Your task to perform on an android device: open app "Grab" (install if not already installed) Image 0: 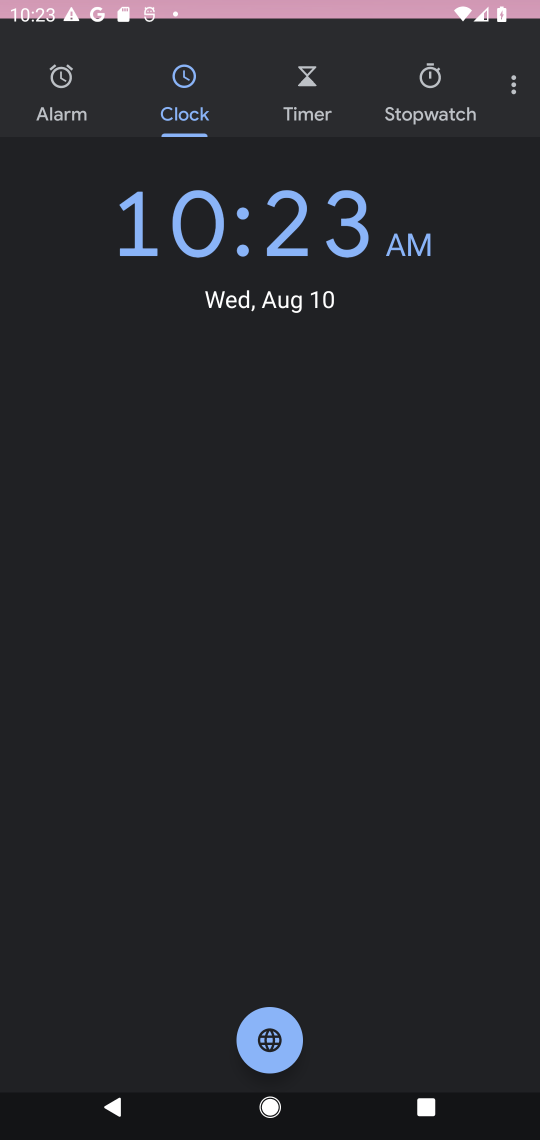
Step 0: press home button
Your task to perform on an android device: open app "Grab" (install if not already installed) Image 1: 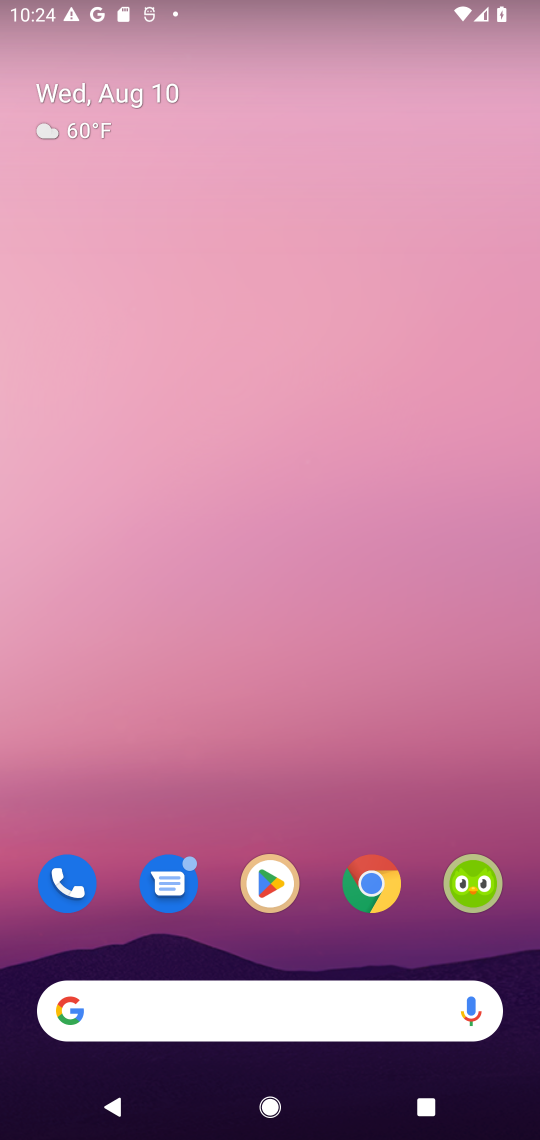
Step 1: drag from (411, 581) to (404, 61)
Your task to perform on an android device: open app "Grab" (install if not already installed) Image 2: 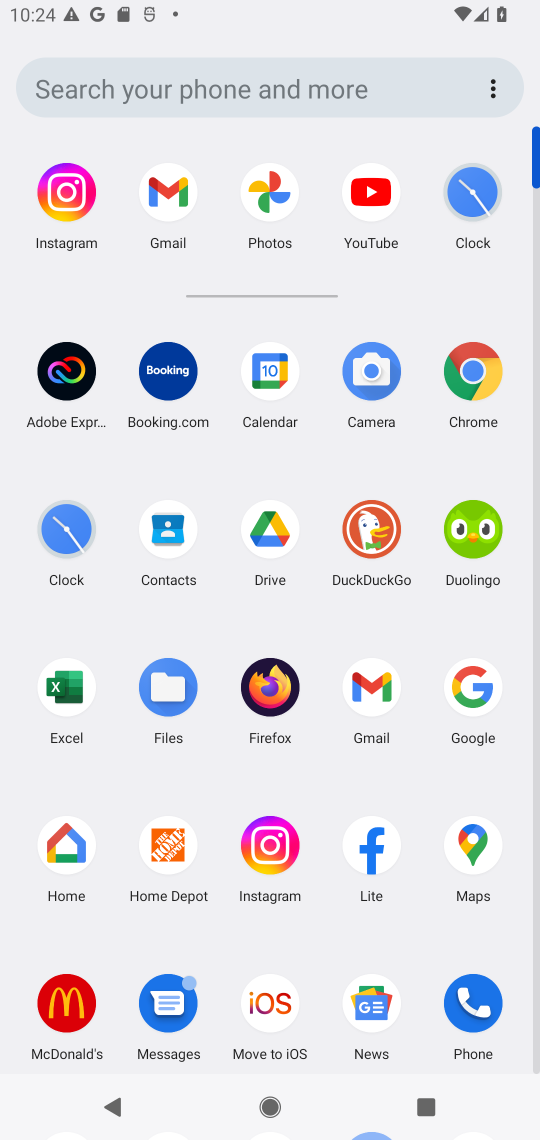
Step 2: drag from (504, 942) to (523, 539)
Your task to perform on an android device: open app "Grab" (install if not already installed) Image 3: 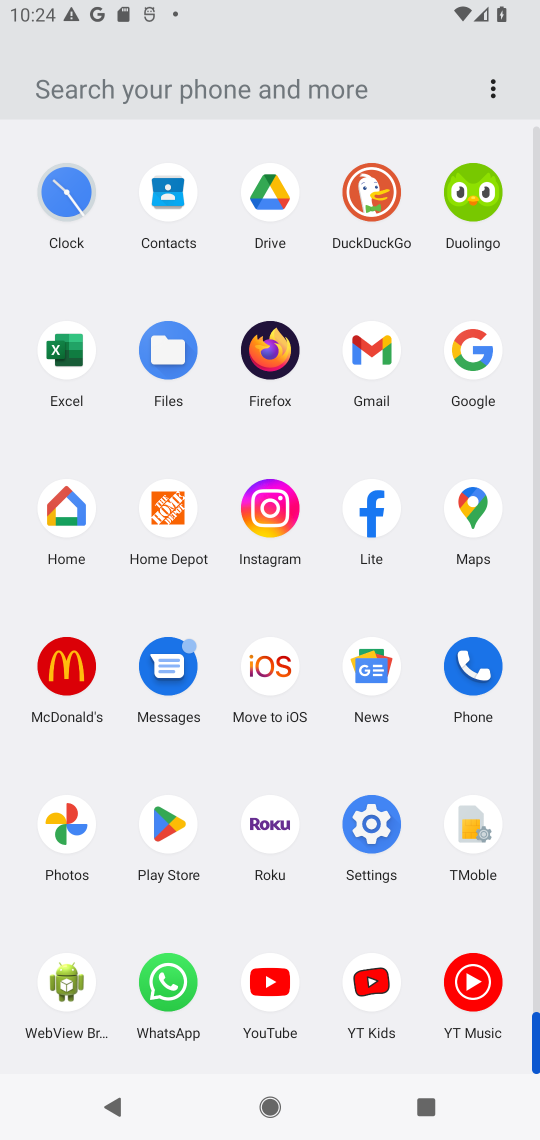
Step 3: click (169, 827)
Your task to perform on an android device: open app "Grab" (install if not already installed) Image 4: 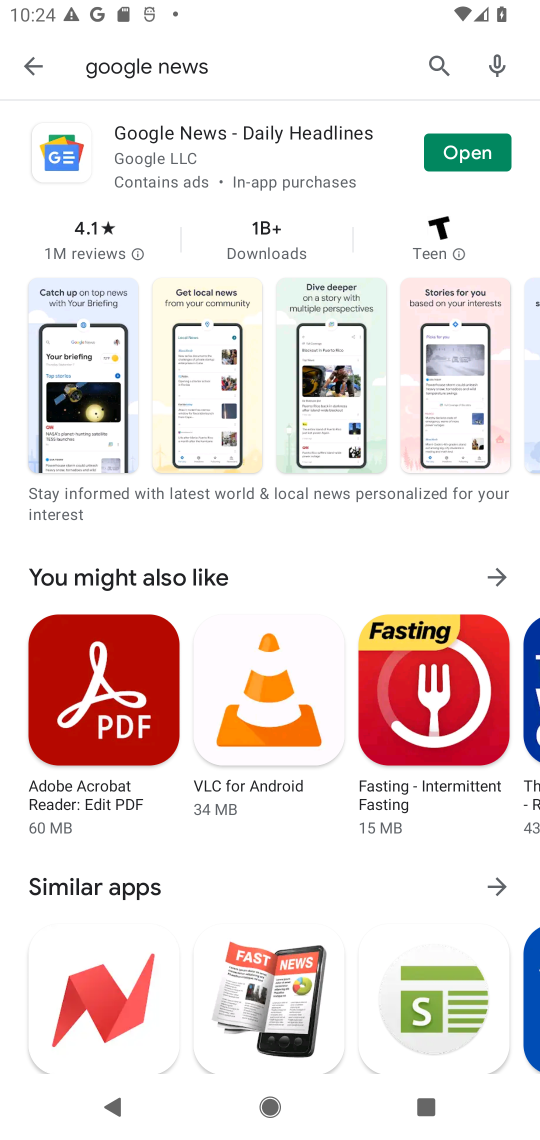
Step 4: click (432, 57)
Your task to perform on an android device: open app "Grab" (install if not already installed) Image 5: 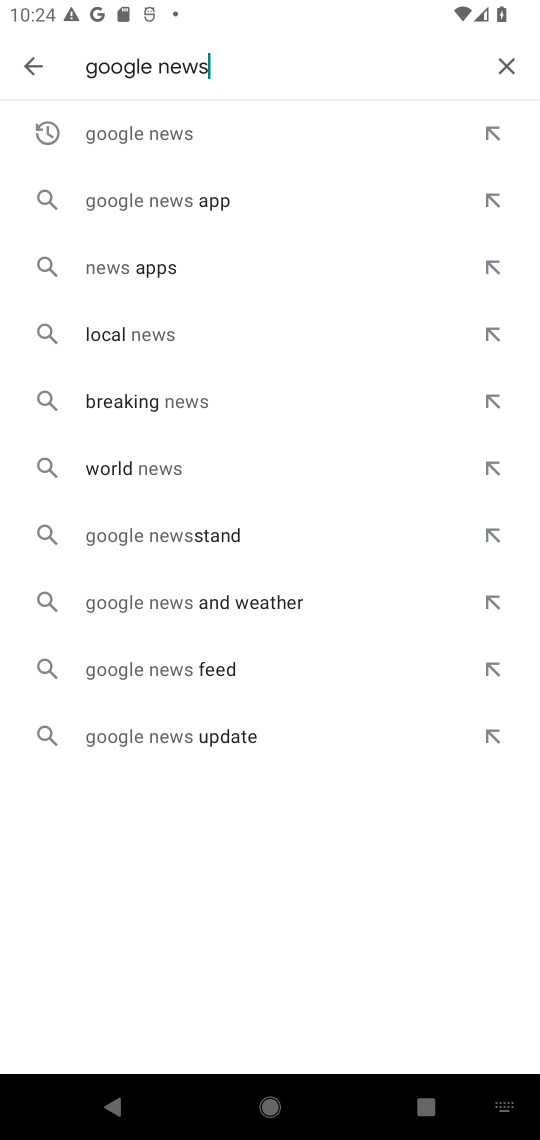
Step 5: click (496, 71)
Your task to perform on an android device: open app "Grab" (install if not already installed) Image 6: 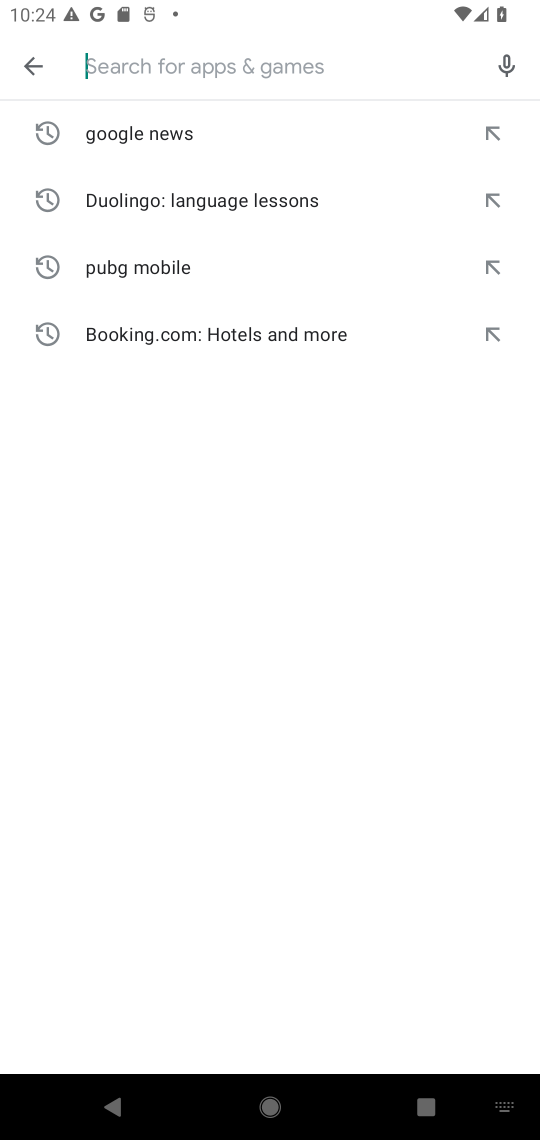
Step 6: press enter
Your task to perform on an android device: open app "Grab" (install if not already installed) Image 7: 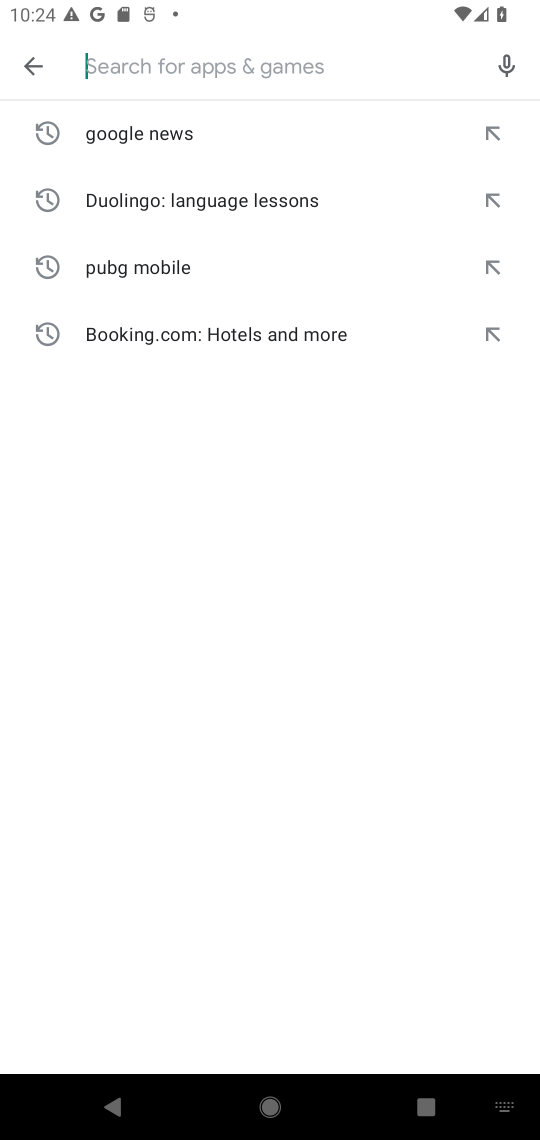
Step 7: type "grab"
Your task to perform on an android device: open app "Grab" (install if not already installed) Image 8: 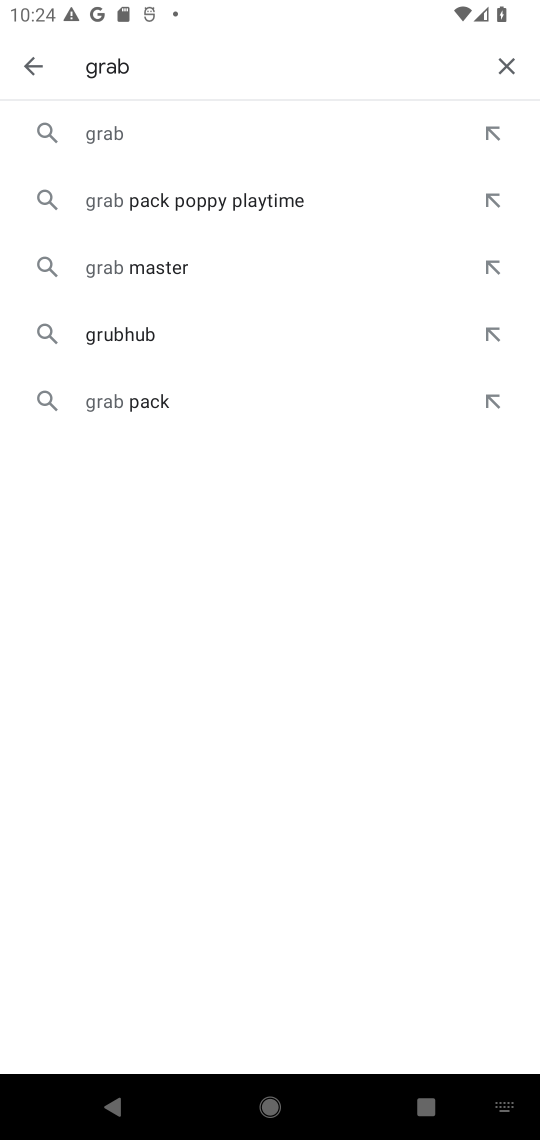
Step 8: click (294, 149)
Your task to perform on an android device: open app "Grab" (install if not already installed) Image 9: 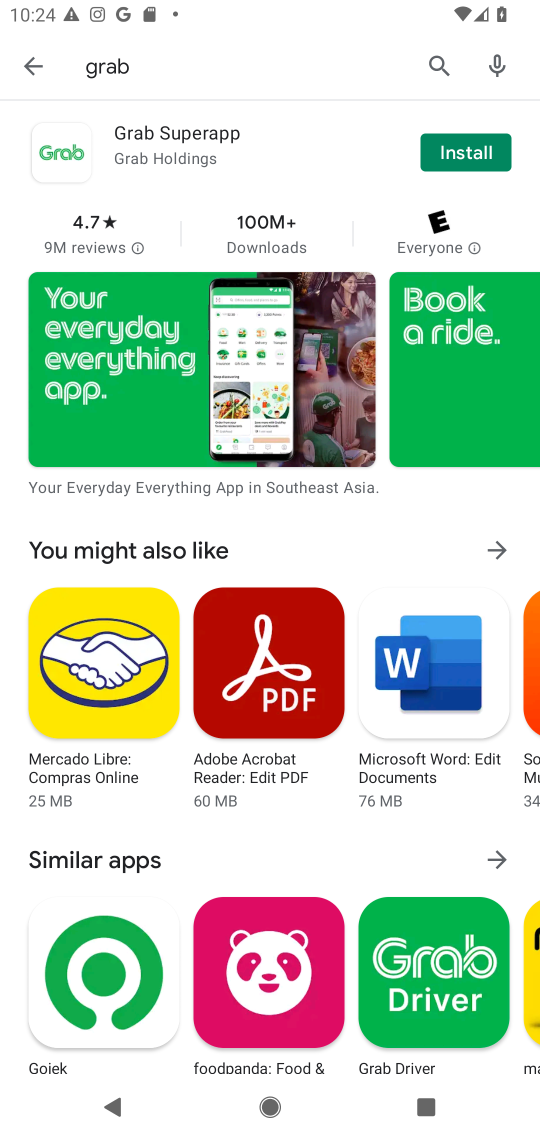
Step 9: click (478, 151)
Your task to perform on an android device: open app "Grab" (install if not already installed) Image 10: 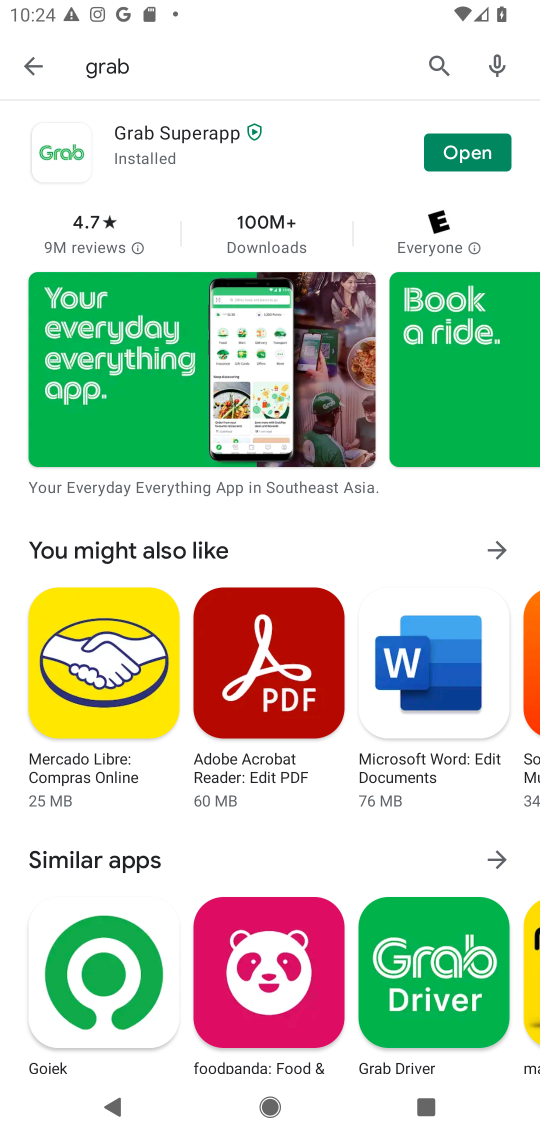
Step 10: click (456, 137)
Your task to perform on an android device: open app "Grab" (install if not already installed) Image 11: 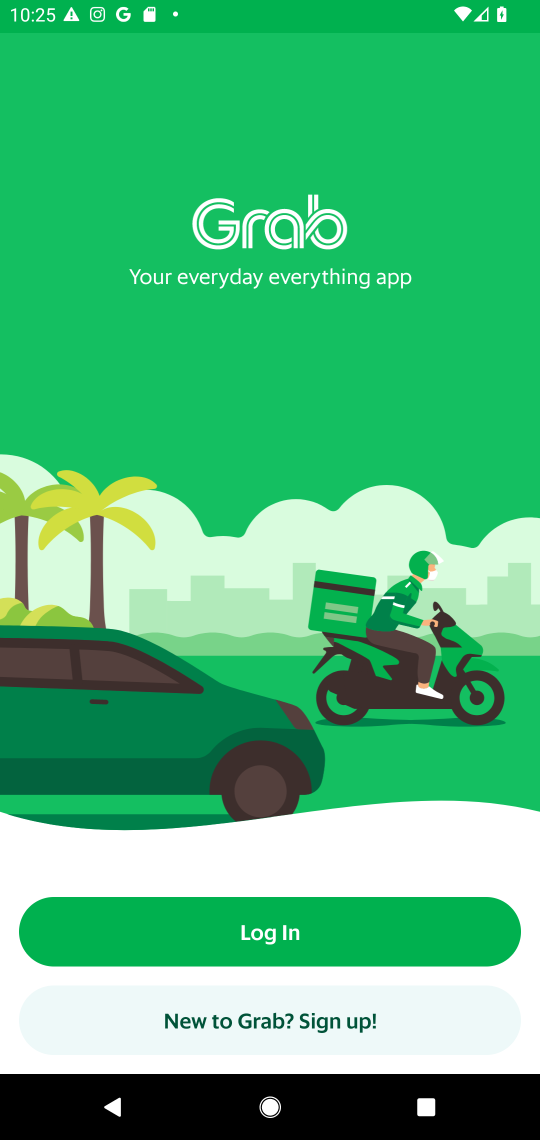
Step 11: task complete